Your task to perform on an android device: Go to Yahoo.com Image 0: 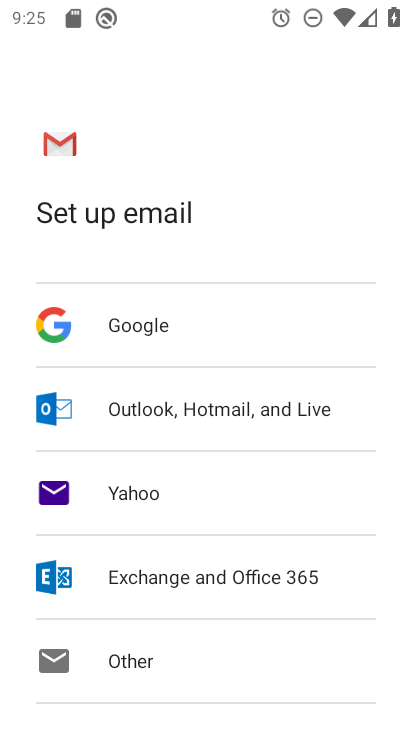
Step 0: press home button
Your task to perform on an android device: Go to Yahoo.com Image 1: 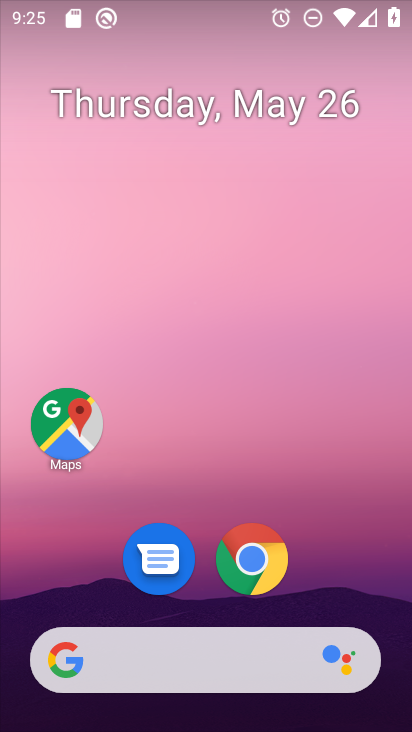
Step 1: click (259, 564)
Your task to perform on an android device: Go to Yahoo.com Image 2: 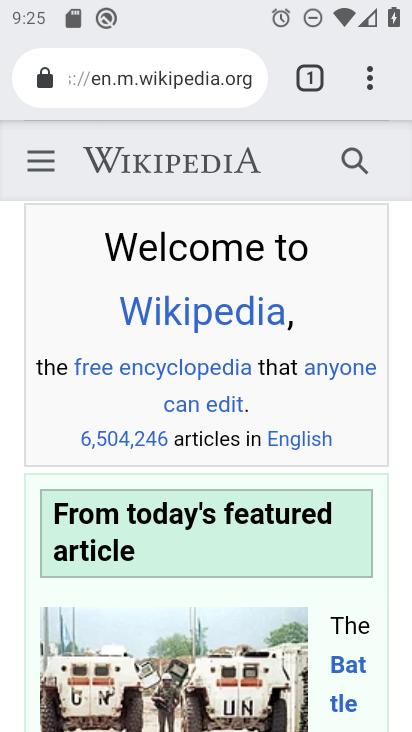
Step 2: press back button
Your task to perform on an android device: Go to Yahoo.com Image 3: 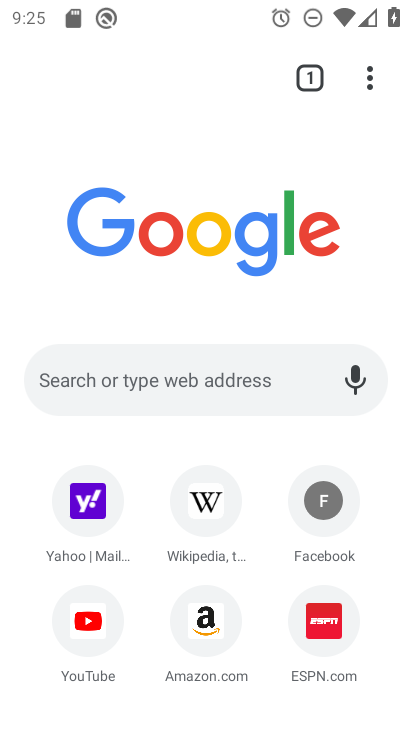
Step 3: click (95, 505)
Your task to perform on an android device: Go to Yahoo.com Image 4: 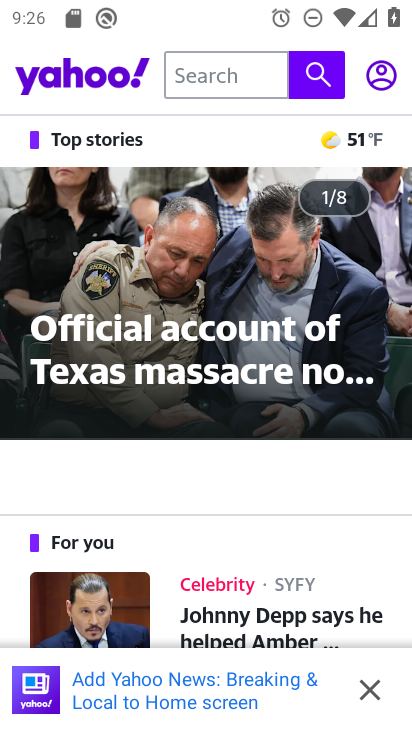
Step 4: task complete